Your task to perform on an android device: change keyboard looks Image 0: 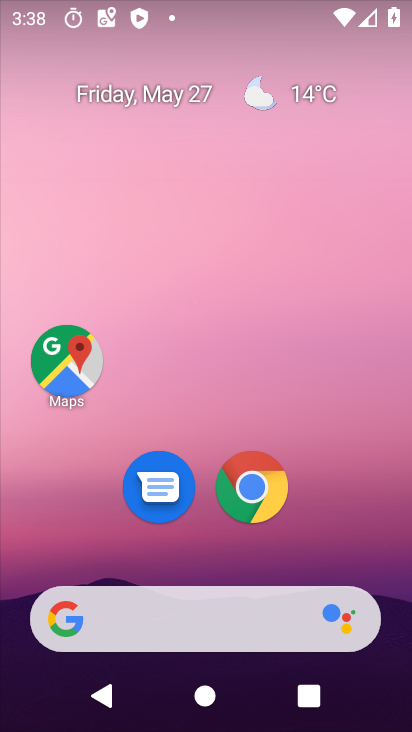
Step 0: drag from (372, 484) to (265, 41)
Your task to perform on an android device: change keyboard looks Image 1: 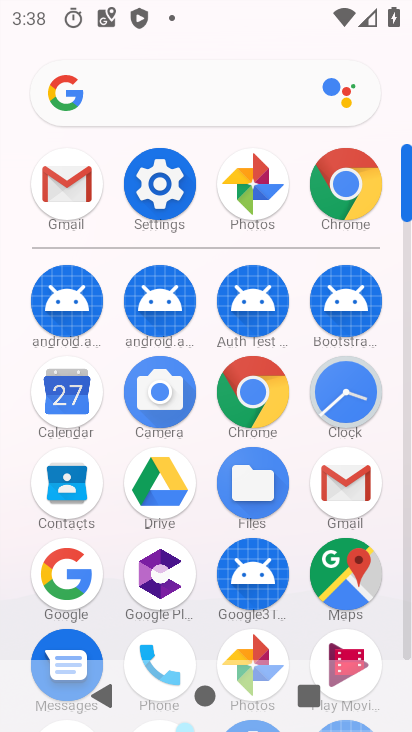
Step 1: click (158, 169)
Your task to perform on an android device: change keyboard looks Image 2: 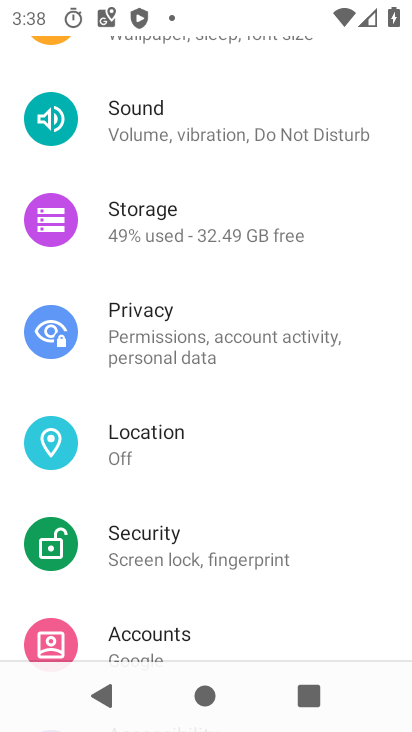
Step 2: drag from (250, 602) to (308, 54)
Your task to perform on an android device: change keyboard looks Image 3: 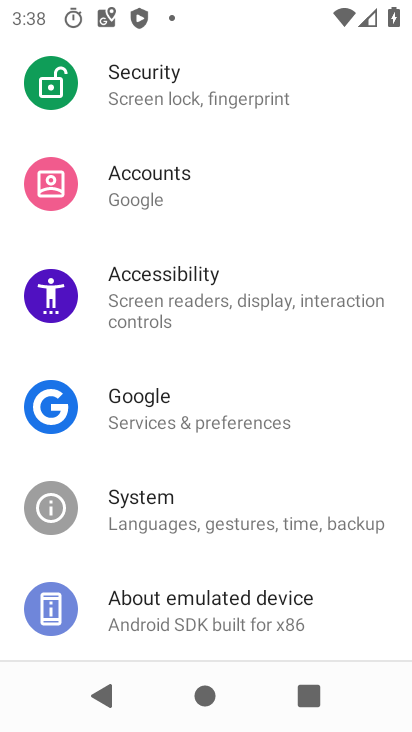
Step 3: click (220, 519)
Your task to perform on an android device: change keyboard looks Image 4: 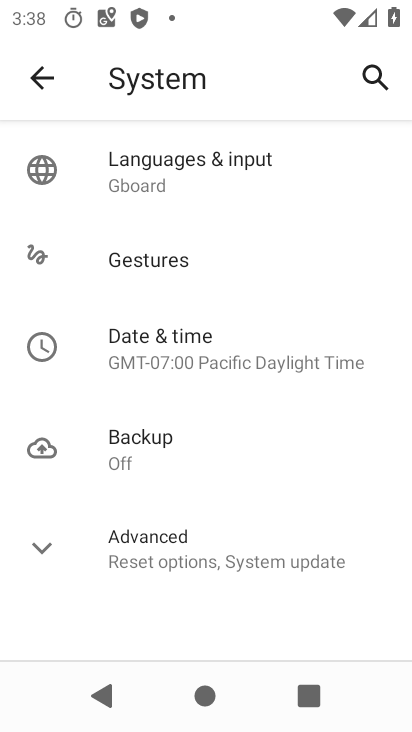
Step 4: click (160, 172)
Your task to perform on an android device: change keyboard looks Image 5: 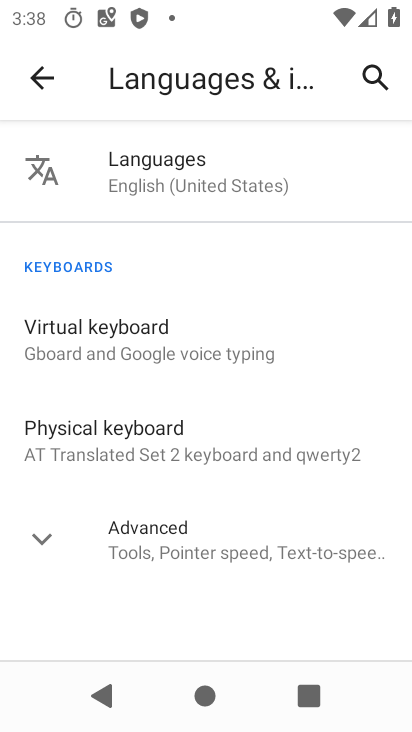
Step 5: click (181, 343)
Your task to perform on an android device: change keyboard looks Image 6: 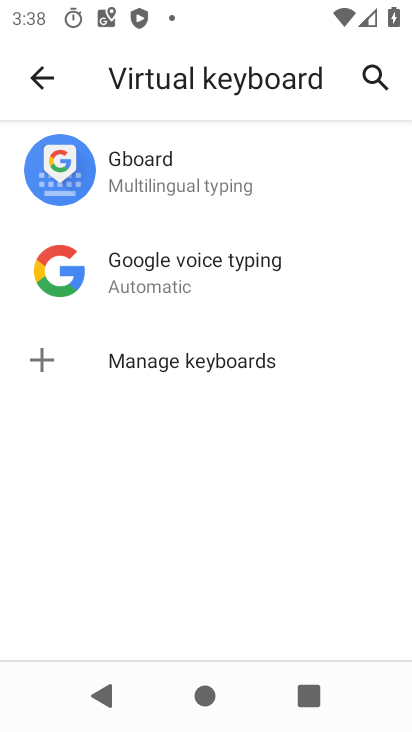
Step 6: click (190, 166)
Your task to perform on an android device: change keyboard looks Image 7: 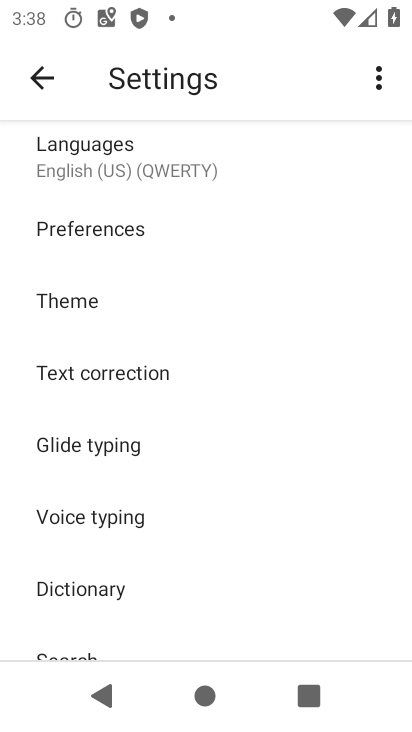
Step 7: drag from (119, 553) to (179, 598)
Your task to perform on an android device: change keyboard looks Image 8: 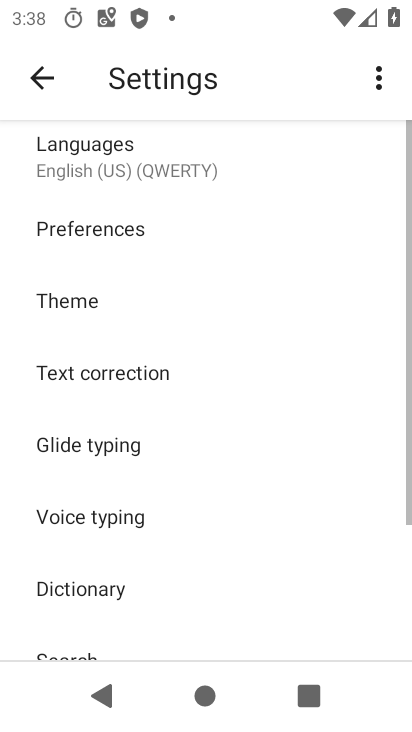
Step 8: click (80, 309)
Your task to perform on an android device: change keyboard looks Image 9: 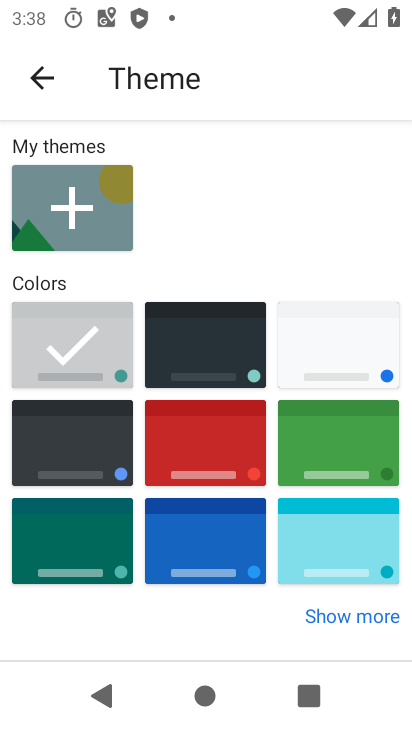
Step 9: click (318, 381)
Your task to perform on an android device: change keyboard looks Image 10: 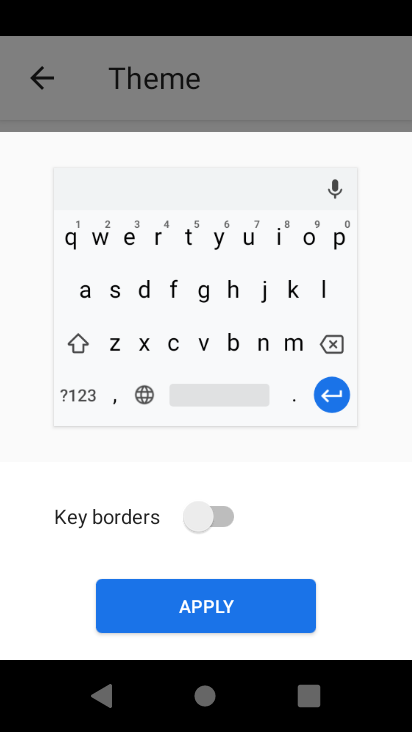
Step 10: click (212, 602)
Your task to perform on an android device: change keyboard looks Image 11: 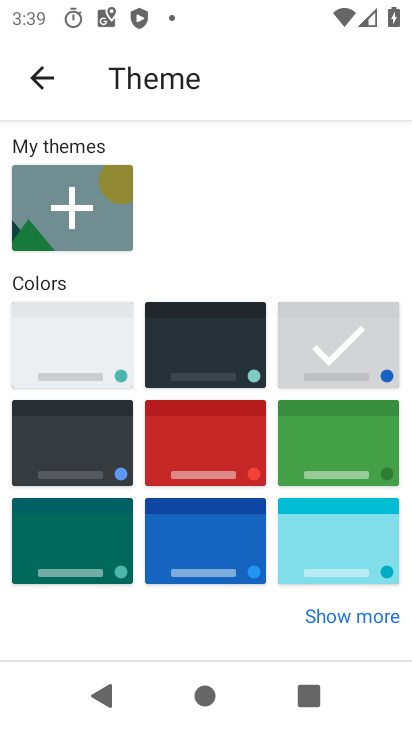
Step 11: task complete